Your task to perform on an android device: check google app version Image 0: 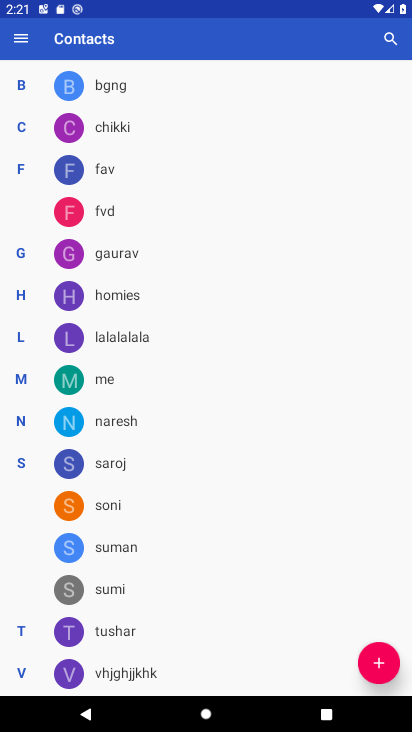
Step 0: press home button
Your task to perform on an android device: check google app version Image 1: 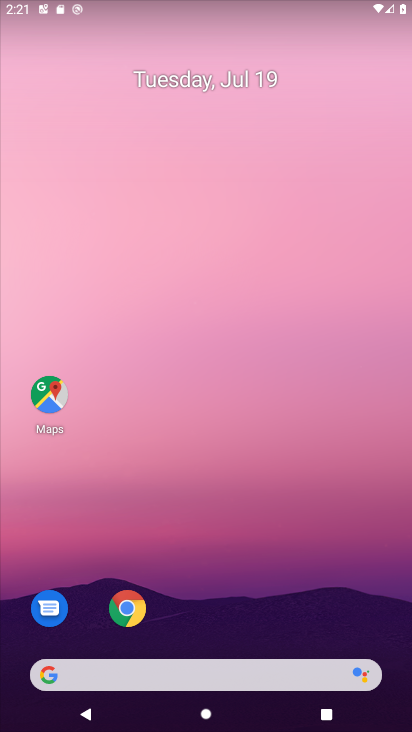
Step 1: drag from (239, 604) to (195, 221)
Your task to perform on an android device: check google app version Image 2: 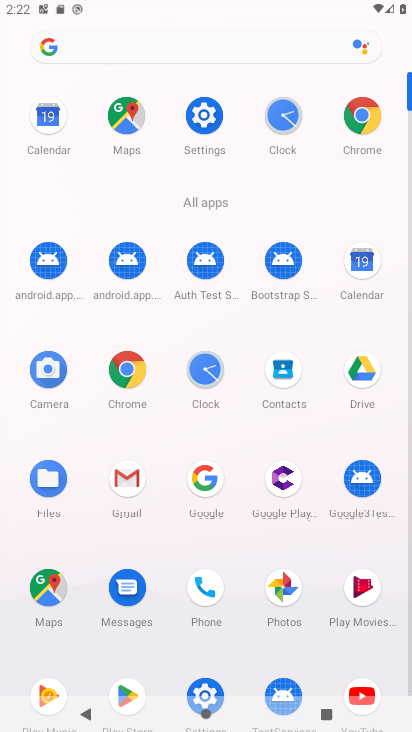
Step 2: click (210, 480)
Your task to perform on an android device: check google app version Image 3: 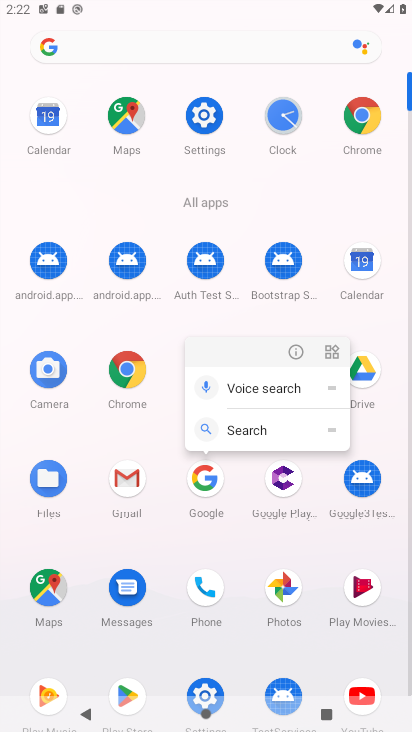
Step 3: click (293, 341)
Your task to perform on an android device: check google app version Image 4: 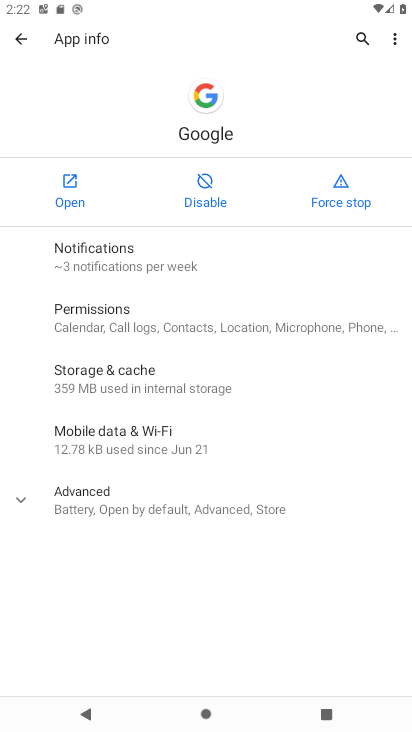
Step 4: click (174, 502)
Your task to perform on an android device: check google app version Image 5: 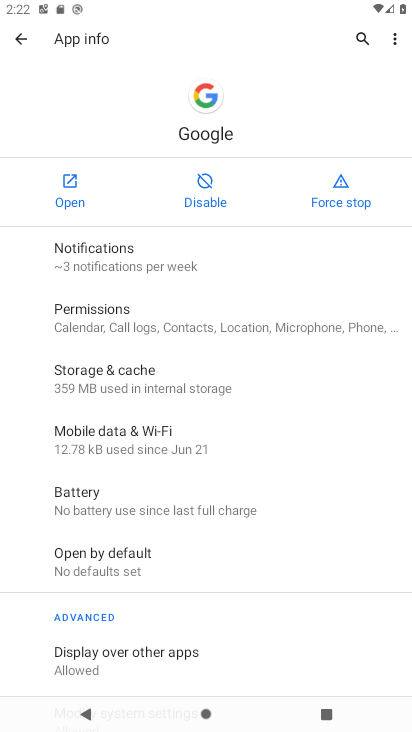
Step 5: task complete